Your task to perform on an android device: open app "WhatsApp Messenger" (install if not already installed) Image 0: 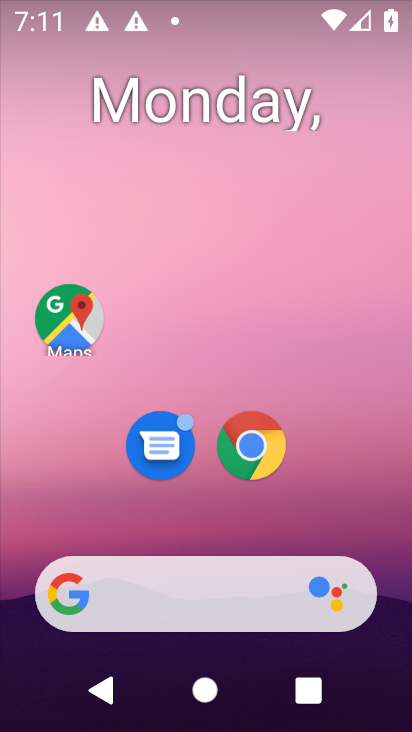
Step 0: drag from (388, 601) to (265, 114)
Your task to perform on an android device: open app "WhatsApp Messenger" (install if not already installed) Image 1: 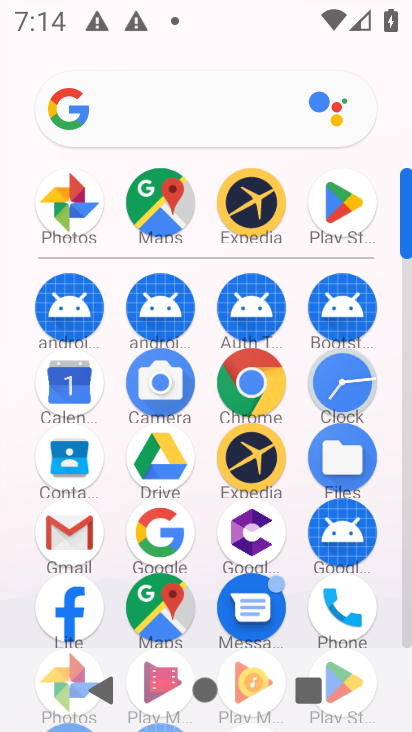
Step 1: click (327, 213)
Your task to perform on an android device: open app "WhatsApp Messenger" (install if not already installed) Image 2: 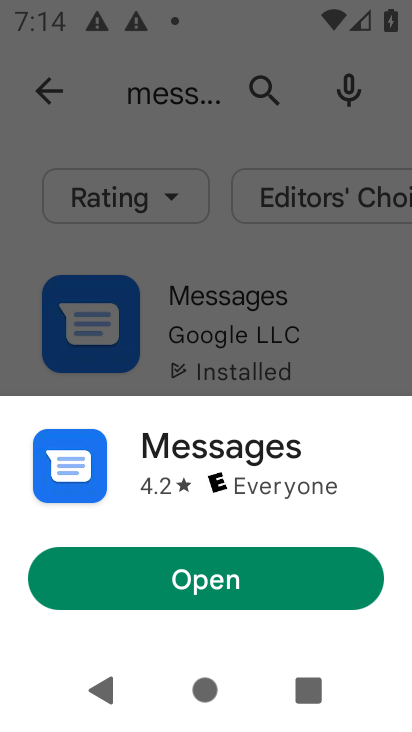
Step 2: press back button
Your task to perform on an android device: open app "WhatsApp Messenger" (install if not already installed) Image 3: 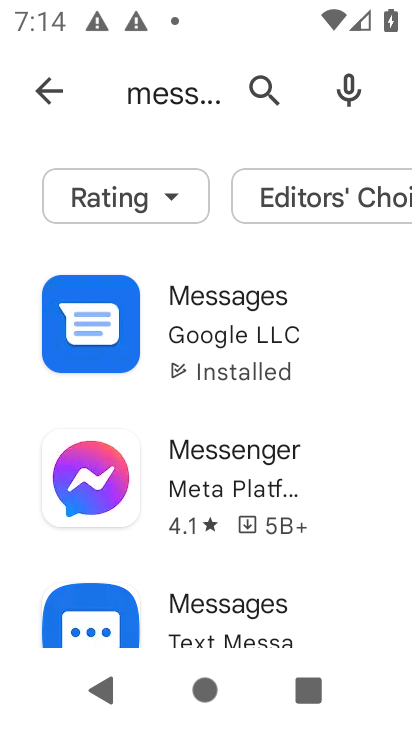
Step 3: press back button
Your task to perform on an android device: open app "WhatsApp Messenger" (install if not already installed) Image 4: 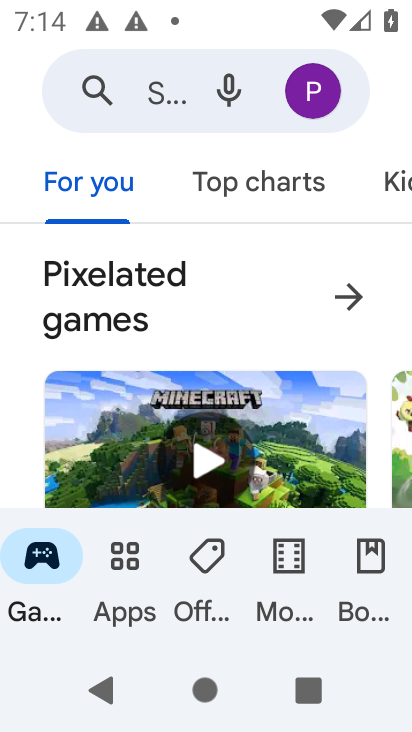
Step 4: click (151, 95)
Your task to perform on an android device: open app "WhatsApp Messenger" (install if not already installed) Image 5: 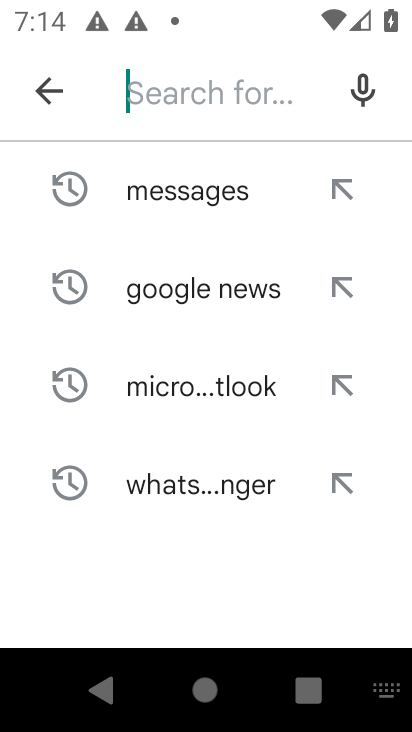
Step 5: type "WhatsApp Messenger"
Your task to perform on an android device: open app "WhatsApp Messenger" (install if not already installed) Image 6: 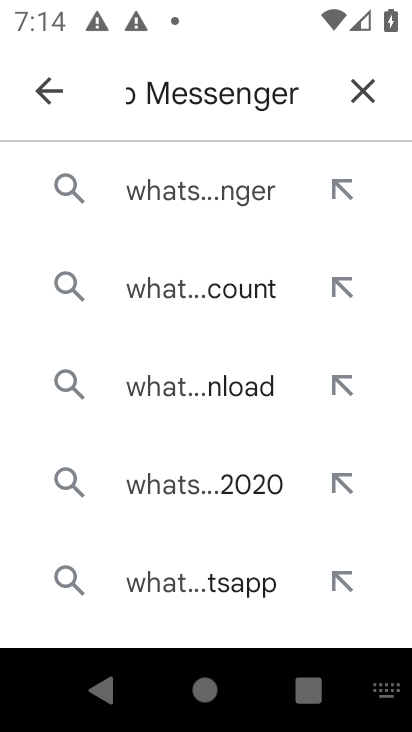
Step 6: click (194, 187)
Your task to perform on an android device: open app "WhatsApp Messenger" (install if not already installed) Image 7: 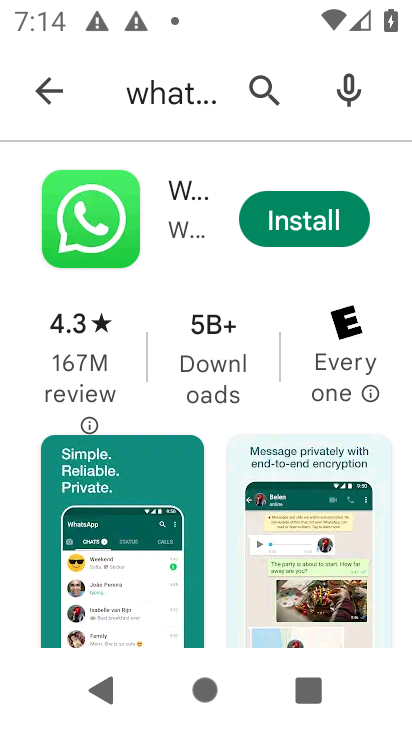
Step 7: task complete